Your task to perform on an android device: set the stopwatch Image 0: 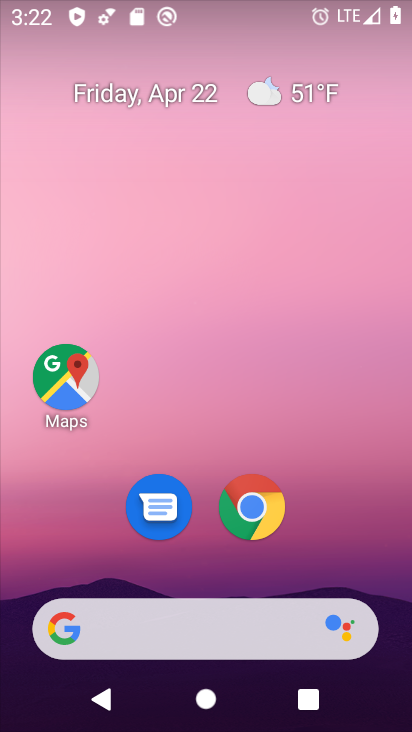
Step 0: drag from (235, 592) to (379, 27)
Your task to perform on an android device: set the stopwatch Image 1: 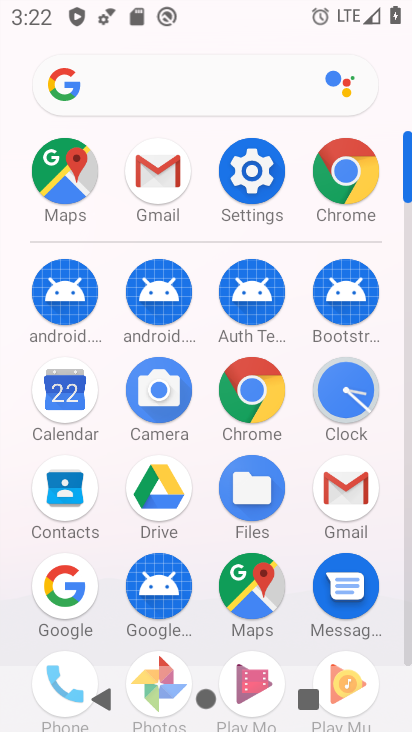
Step 1: click (329, 401)
Your task to perform on an android device: set the stopwatch Image 2: 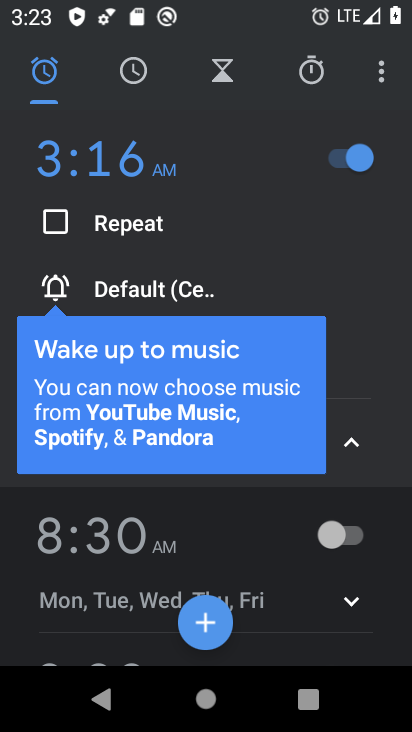
Step 2: click (311, 76)
Your task to perform on an android device: set the stopwatch Image 3: 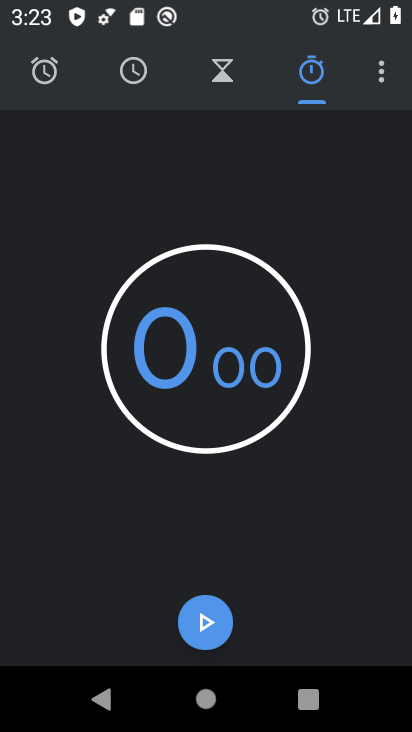
Step 3: task complete